Your task to perform on an android device: Is it going to rain tomorrow? Image 0: 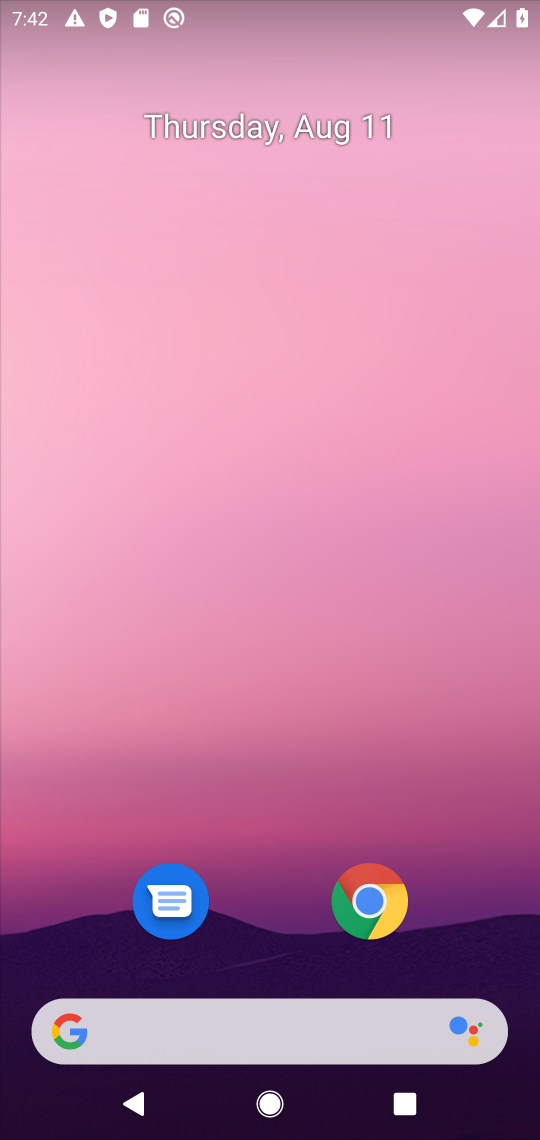
Step 0: drag from (275, 846) to (371, 23)
Your task to perform on an android device: Is it going to rain tomorrow? Image 1: 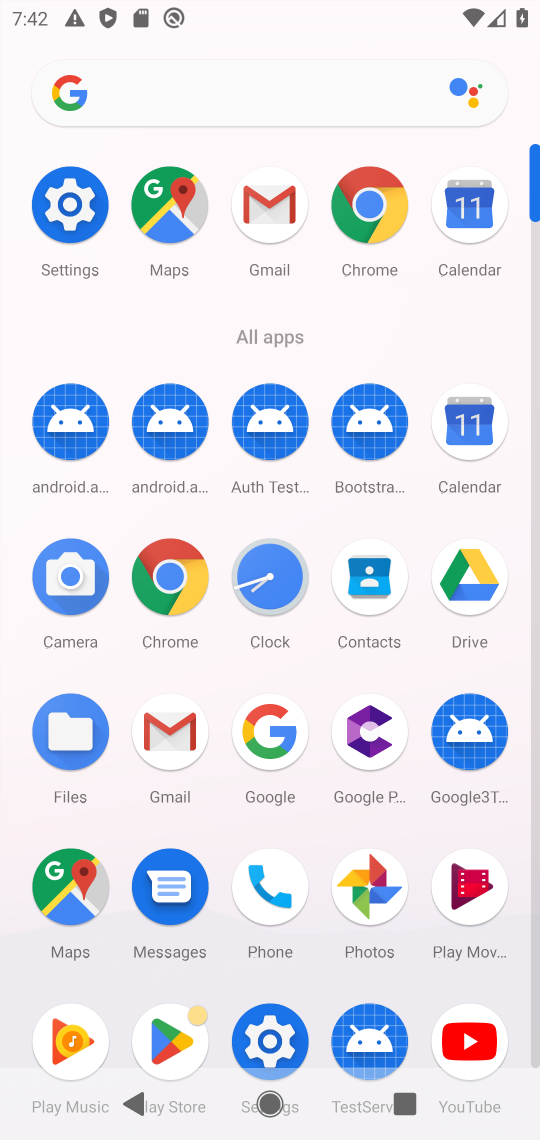
Step 1: click (161, 581)
Your task to perform on an android device: Is it going to rain tomorrow? Image 2: 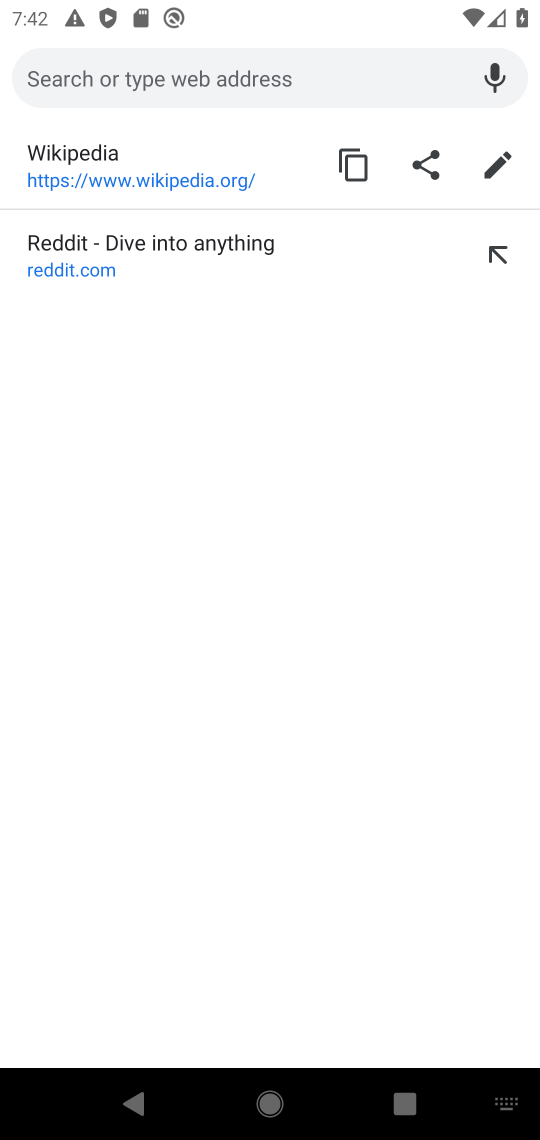
Step 2: type "weather"
Your task to perform on an android device: Is it going to rain tomorrow? Image 3: 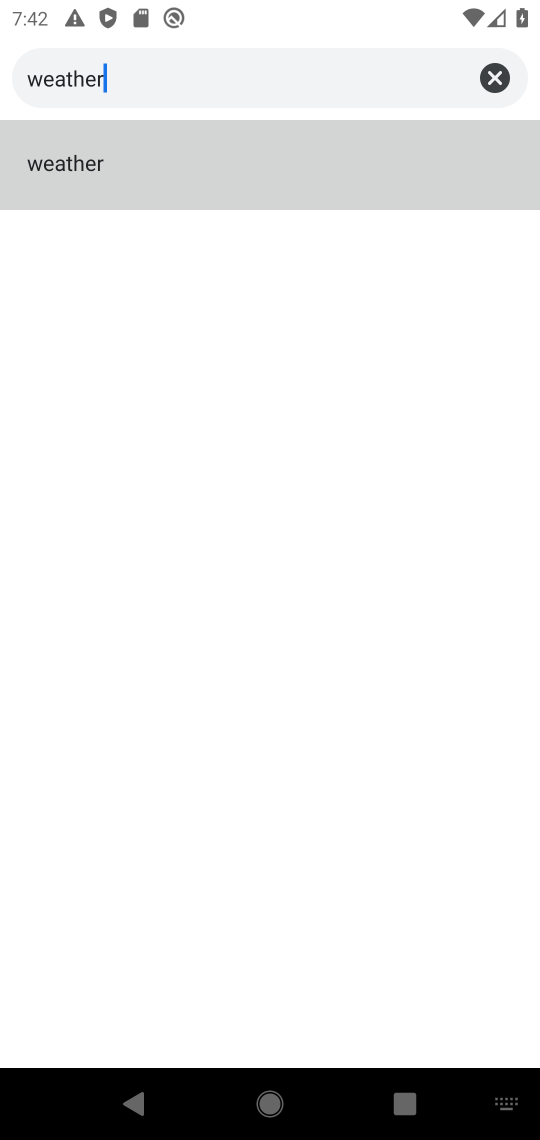
Step 3: click (135, 158)
Your task to perform on an android device: Is it going to rain tomorrow? Image 4: 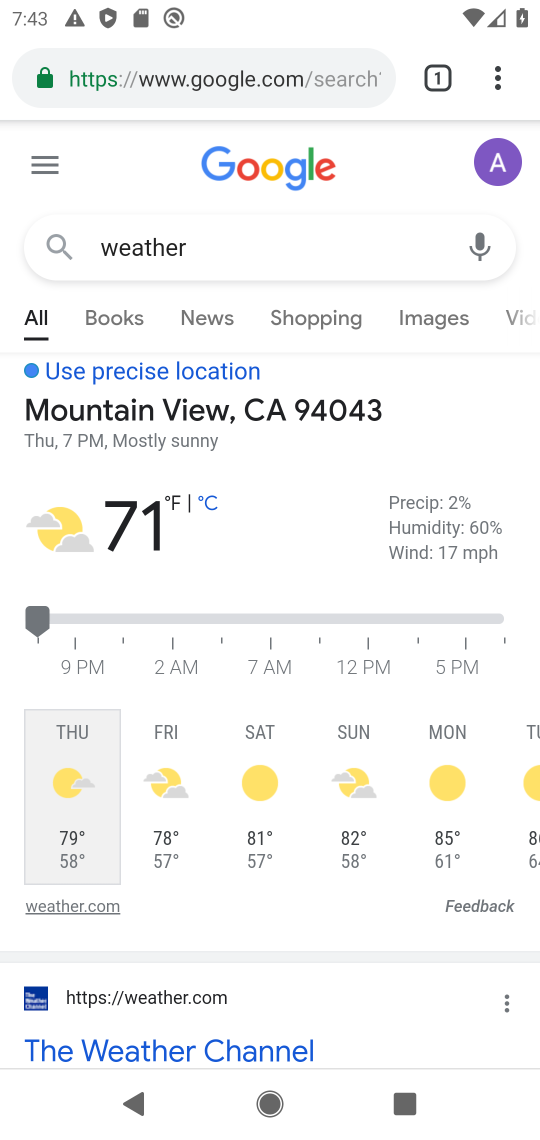
Step 4: click (149, 783)
Your task to perform on an android device: Is it going to rain tomorrow? Image 5: 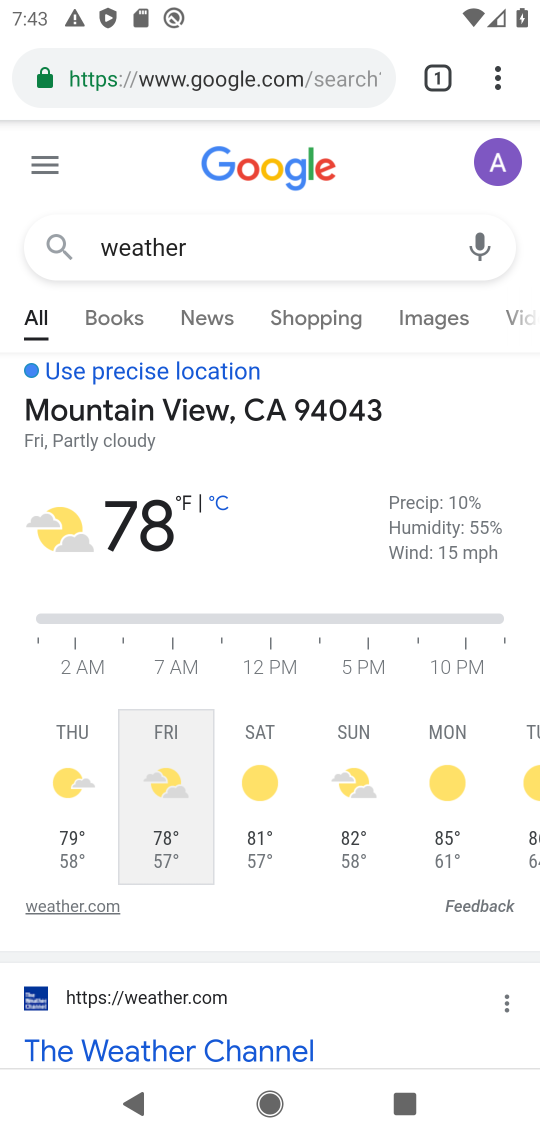
Step 5: task complete